Your task to perform on an android device: toggle translation in the chrome app Image 0: 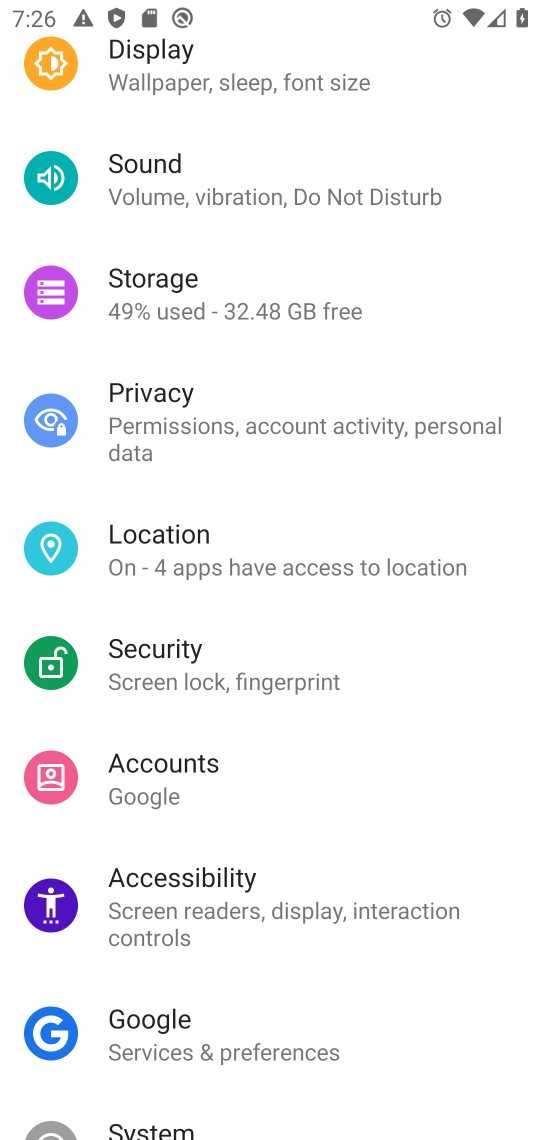
Step 0: press home button
Your task to perform on an android device: toggle translation in the chrome app Image 1: 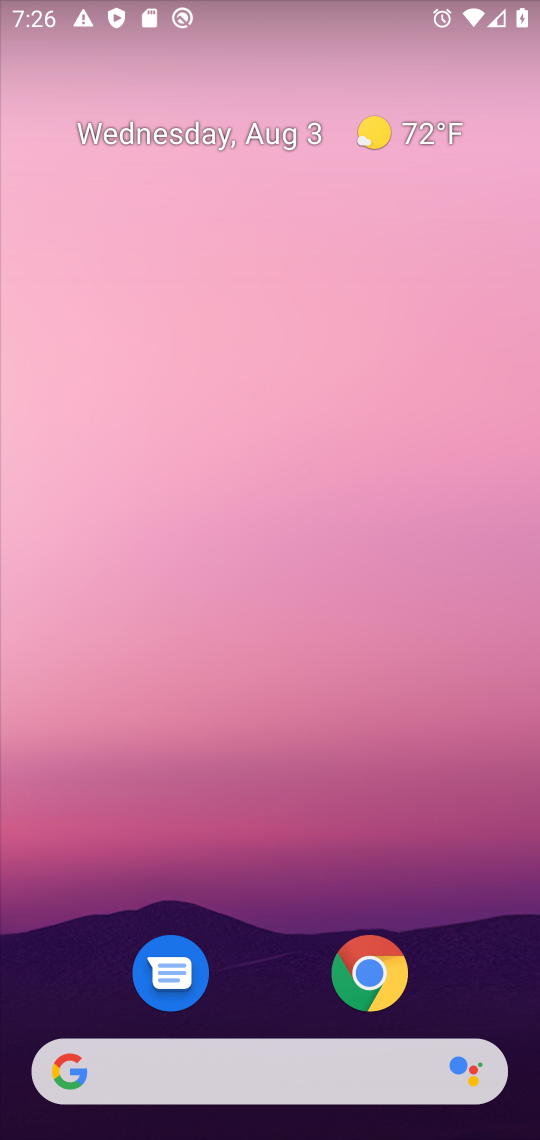
Step 1: click (361, 964)
Your task to perform on an android device: toggle translation in the chrome app Image 2: 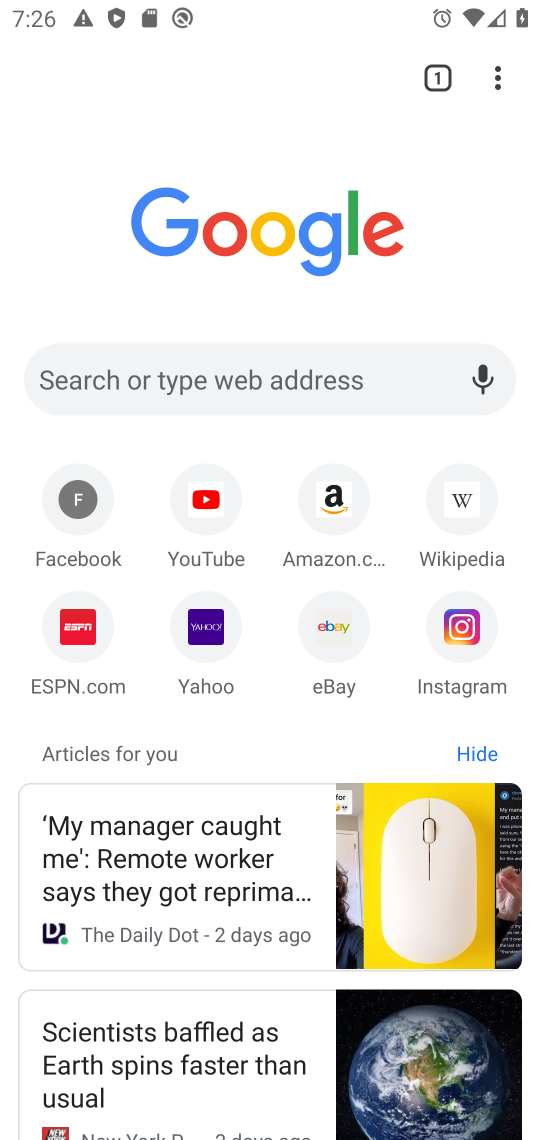
Step 2: click (496, 79)
Your task to perform on an android device: toggle translation in the chrome app Image 3: 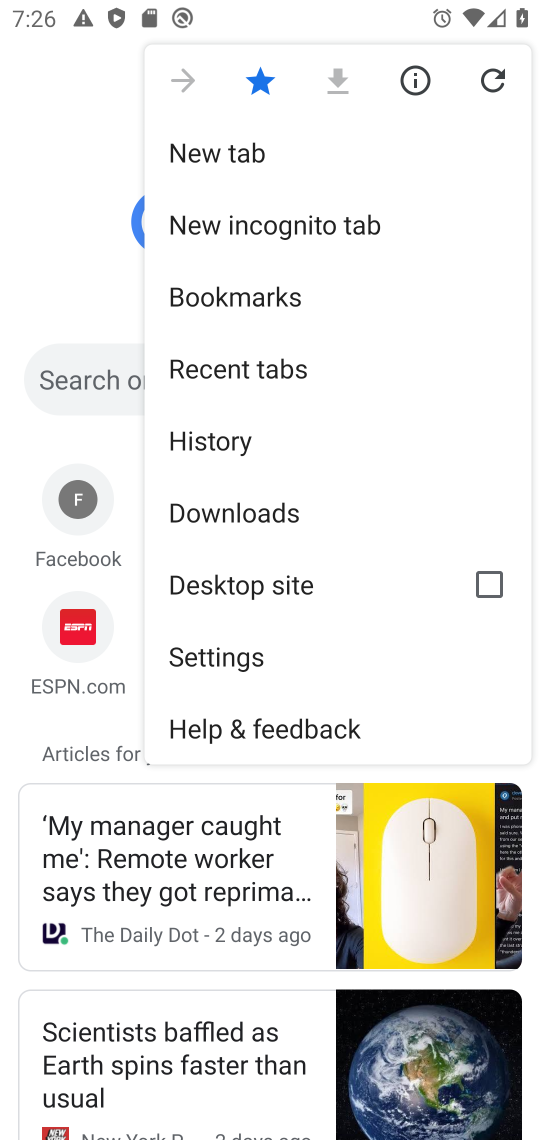
Step 3: click (204, 653)
Your task to perform on an android device: toggle translation in the chrome app Image 4: 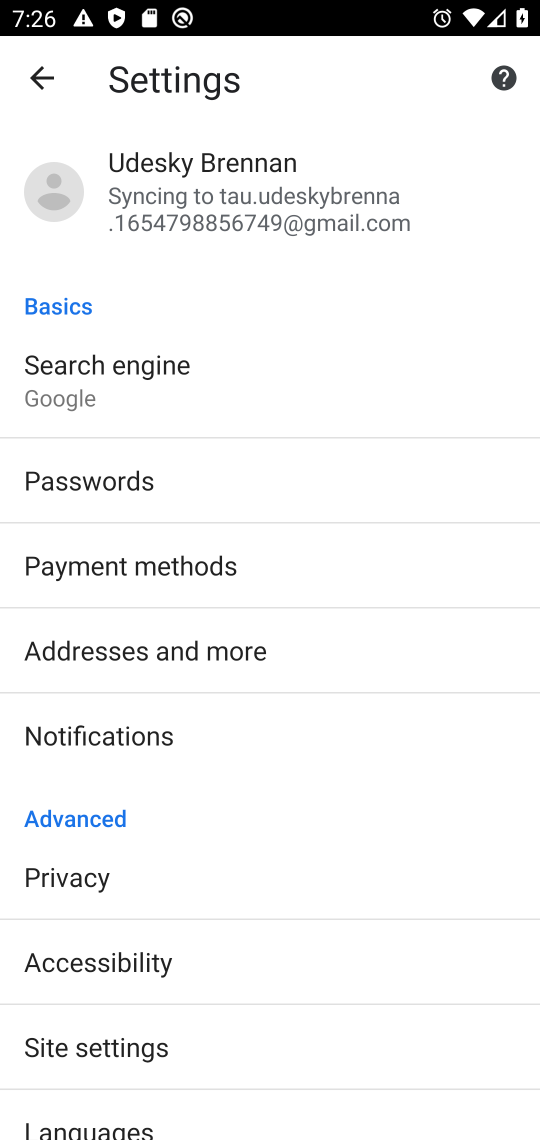
Step 4: drag from (152, 997) to (165, 705)
Your task to perform on an android device: toggle translation in the chrome app Image 5: 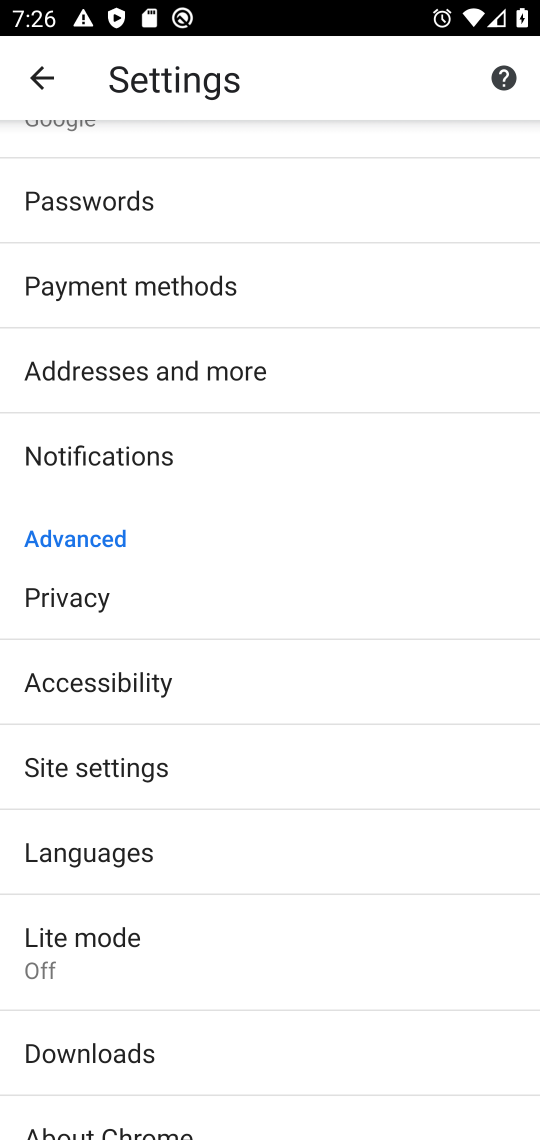
Step 5: click (83, 858)
Your task to perform on an android device: toggle translation in the chrome app Image 6: 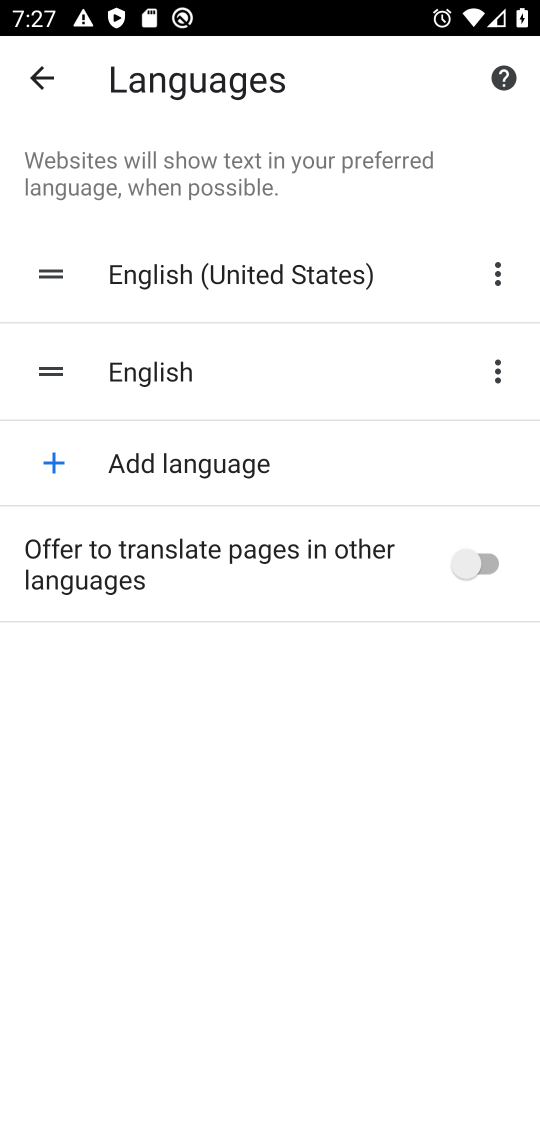
Step 6: click (485, 567)
Your task to perform on an android device: toggle translation in the chrome app Image 7: 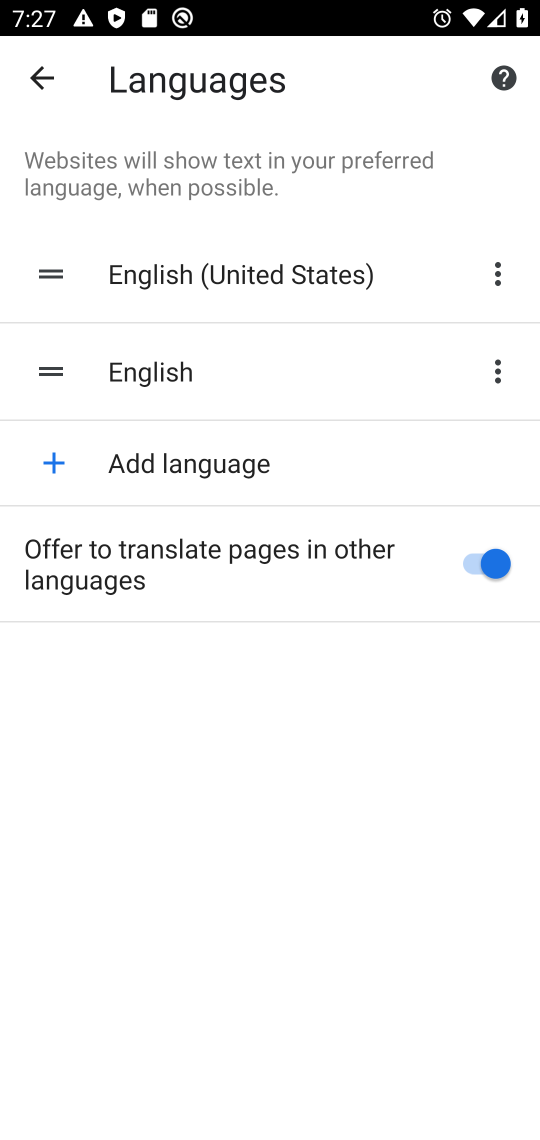
Step 7: task complete